Your task to perform on an android device: Do I have any events tomorrow? Image 0: 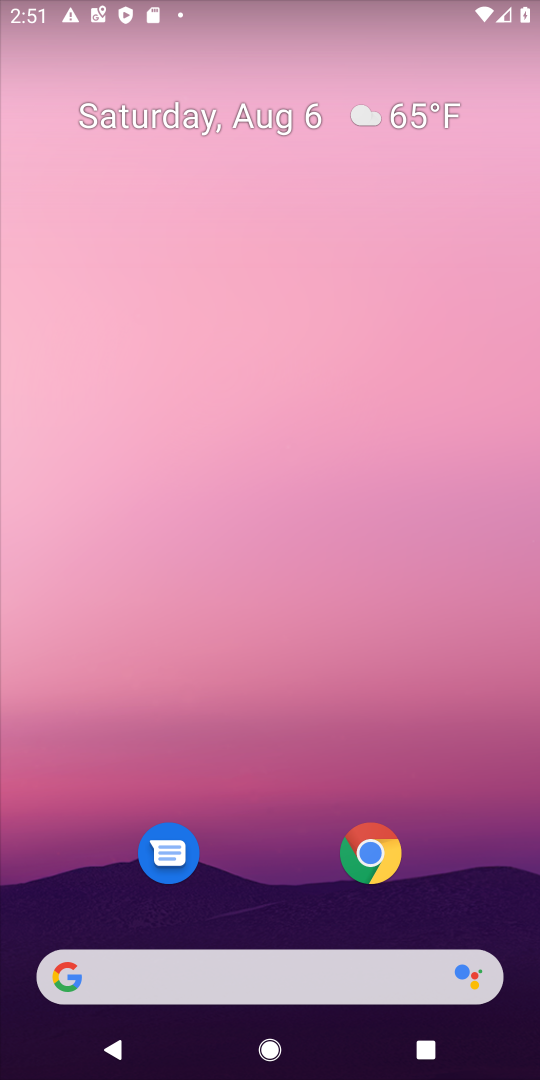
Step 0: drag from (268, 919) to (486, 63)
Your task to perform on an android device: Do I have any events tomorrow? Image 1: 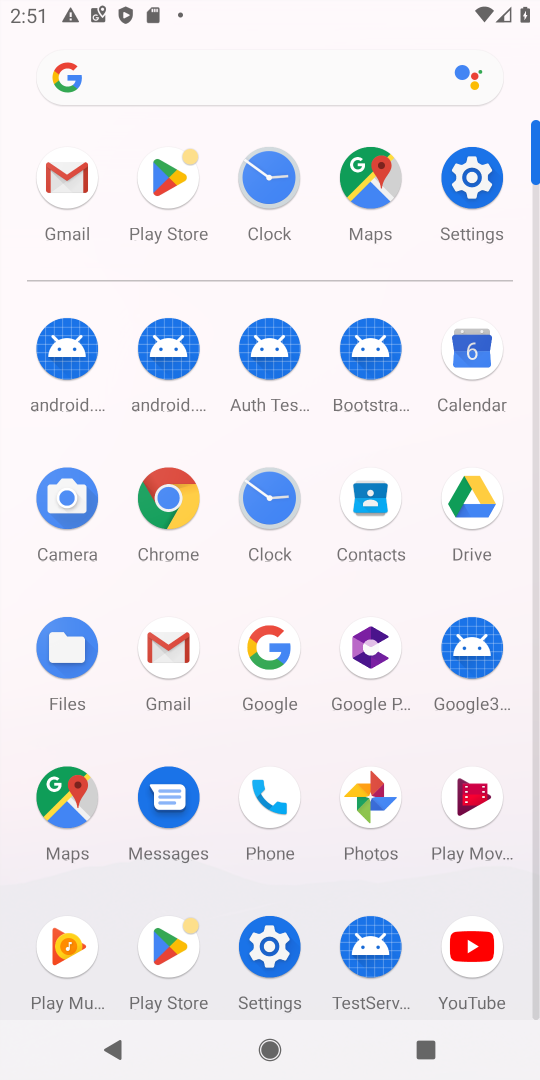
Step 1: click (465, 371)
Your task to perform on an android device: Do I have any events tomorrow? Image 2: 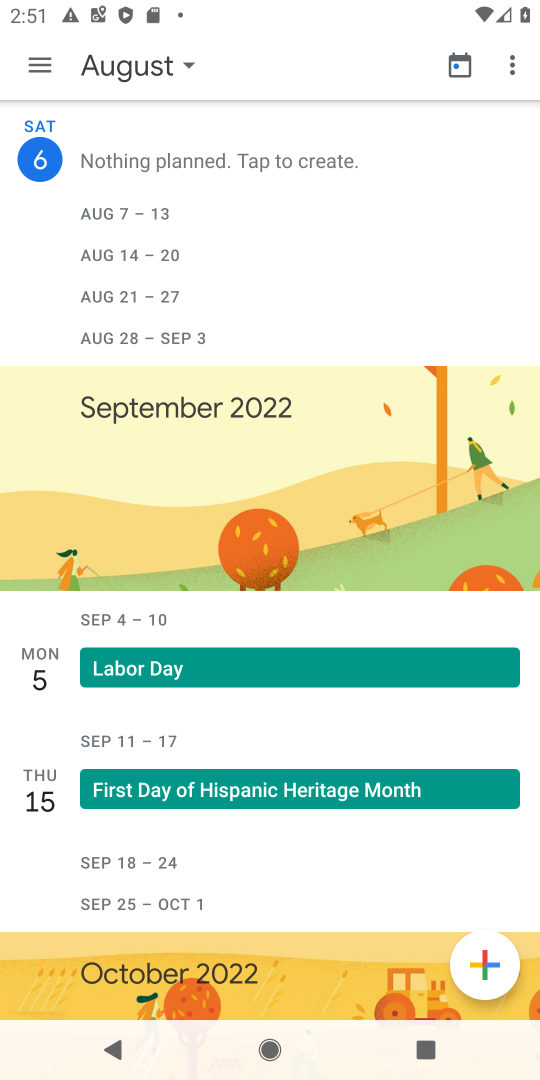
Step 2: task complete